Your task to perform on an android device: Do I have any events today? Image 0: 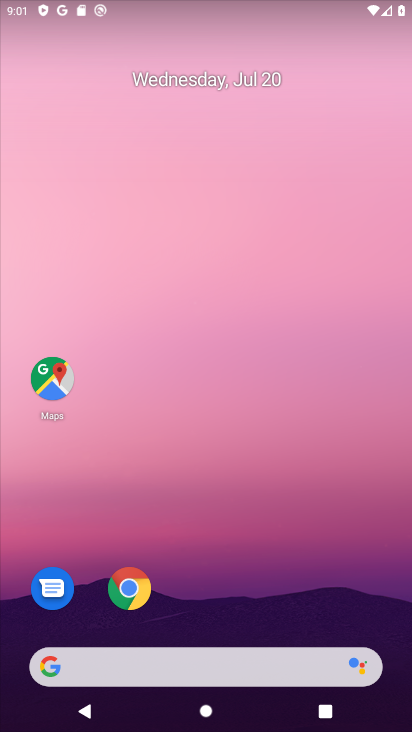
Step 0: drag from (254, 648) to (327, 63)
Your task to perform on an android device: Do I have any events today? Image 1: 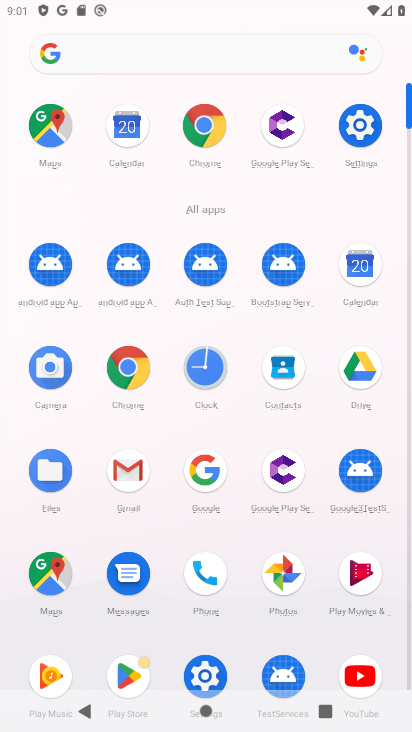
Step 1: click (362, 263)
Your task to perform on an android device: Do I have any events today? Image 2: 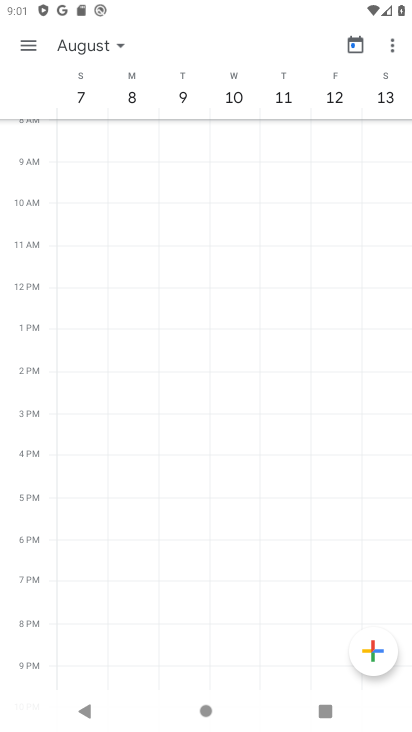
Step 2: click (116, 44)
Your task to perform on an android device: Do I have any events today? Image 3: 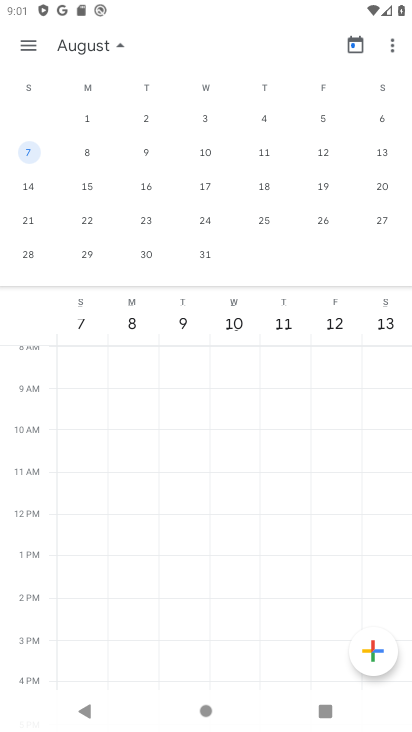
Step 3: drag from (57, 175) to (94, 184)
Your task to perform on an android device: Do I have any events today? Image 4: 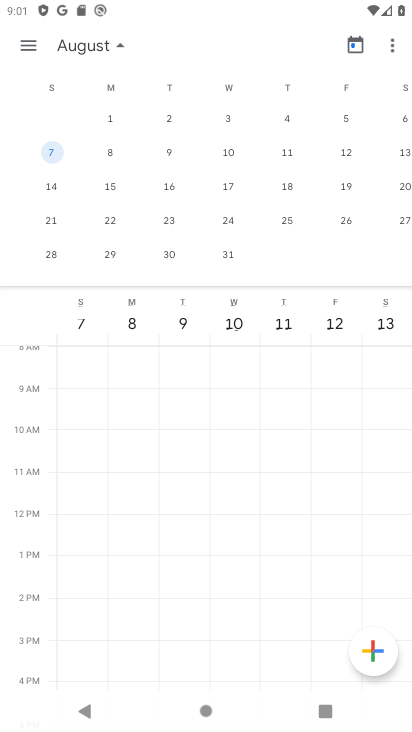
Step 4: drag from (140, 194) to (313, 206)
Your task to perform on an android device: Do I have any events today? Image 5: 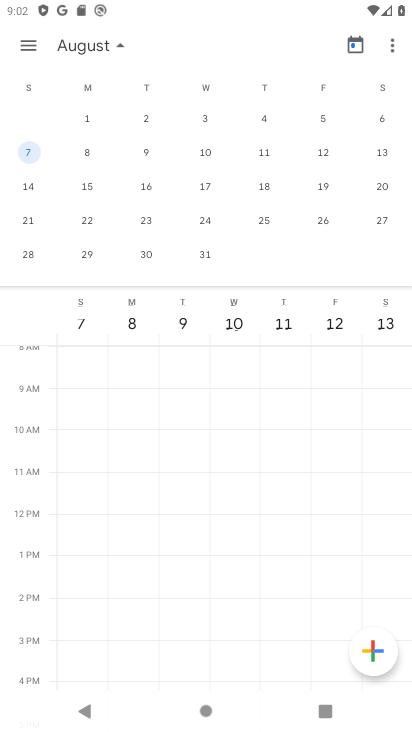
Step 5: drag from (74, 214) to (389, 226)
Your task to perform on an android device: Do I have any events today? Image 6: 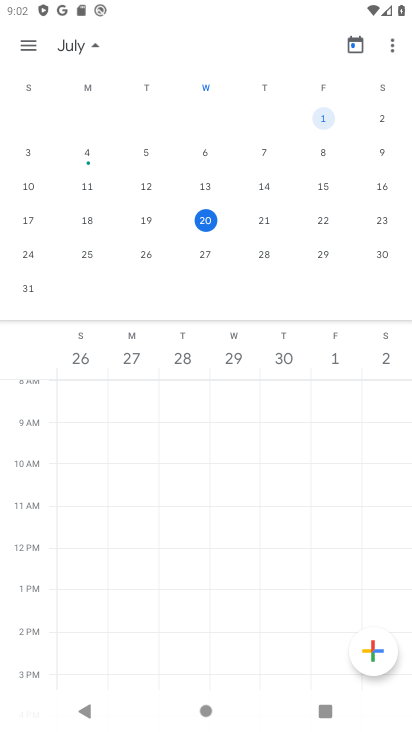
Step 6: click (257, 222)
Your task to perform on an android device: Do I have any events today? Image 7: 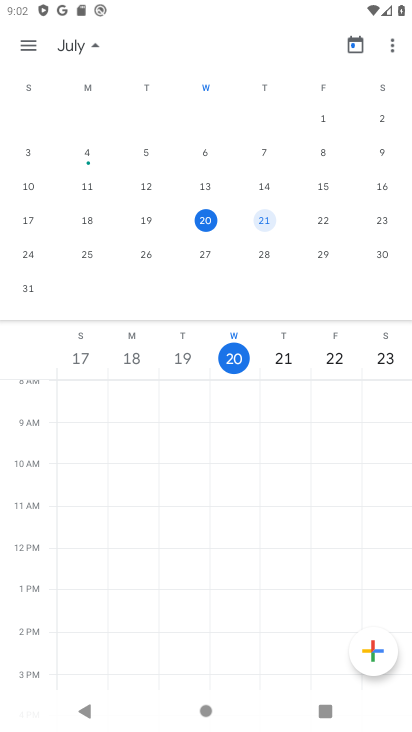
Step 7: task complete